Your task to perform on an android device: find snoozed emails in the gmail app Image 0: 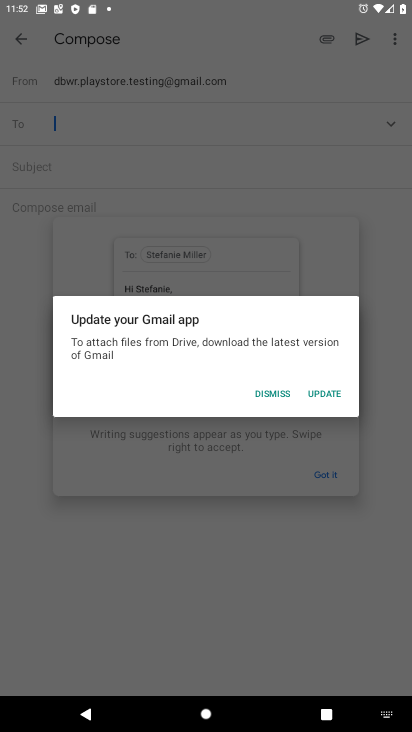
Step 0: press home button
Your task to perform on an android device: find snoozed emails in the gmail app Image 1: 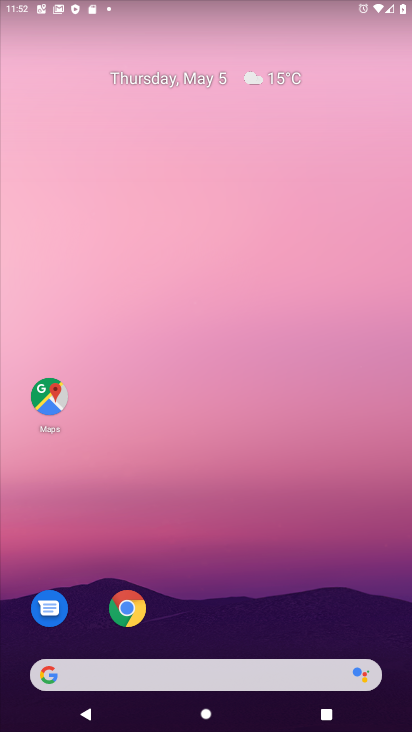
Step 1: drag from (251, 538) to (313, 164)
Your task to perform on an android device: find snoozed emails in the gmail app Image 2: 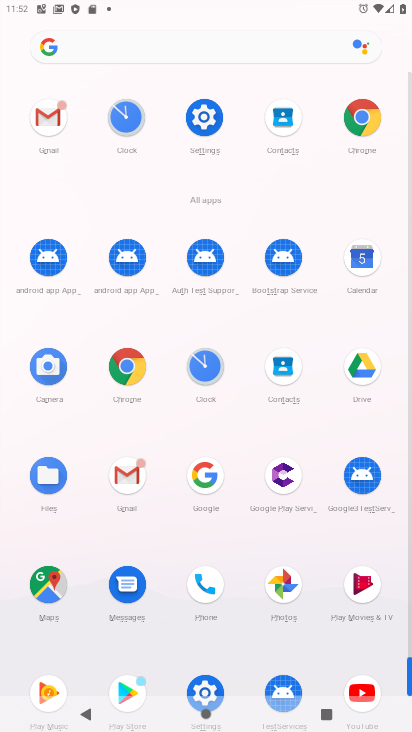
Step 2: click (131, 479)
Your task to perform on an android device: find snoozed emails in the gmail app Image 3: 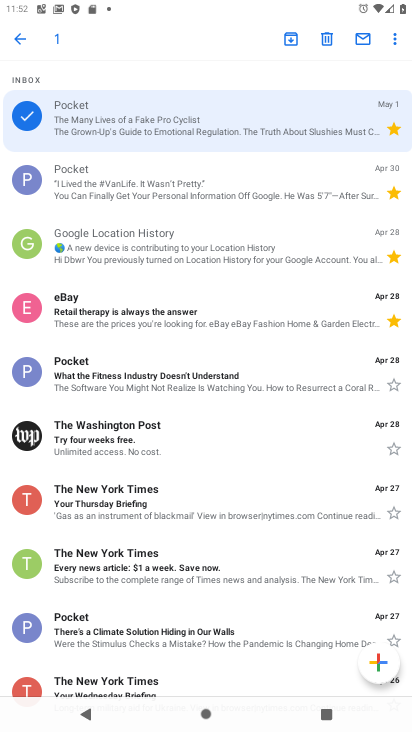
Step 3: press back button
Your task to perform on an android device: find snoozed emails in the gmail app Image 4: 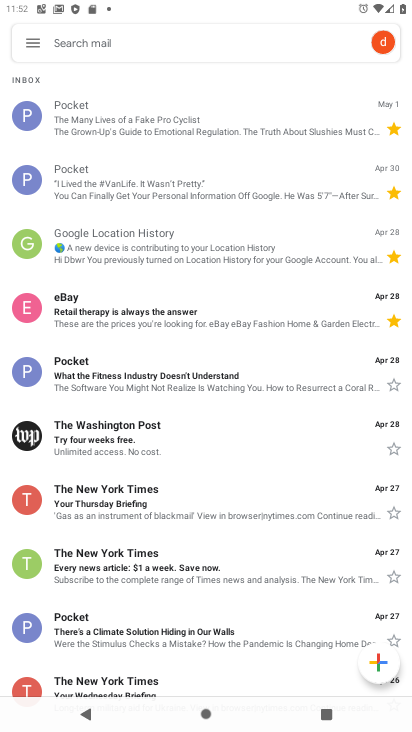
Step 4: click (30, 44)
Your task to perform on an android device: find snoozed emails in the gmail app Image 5: 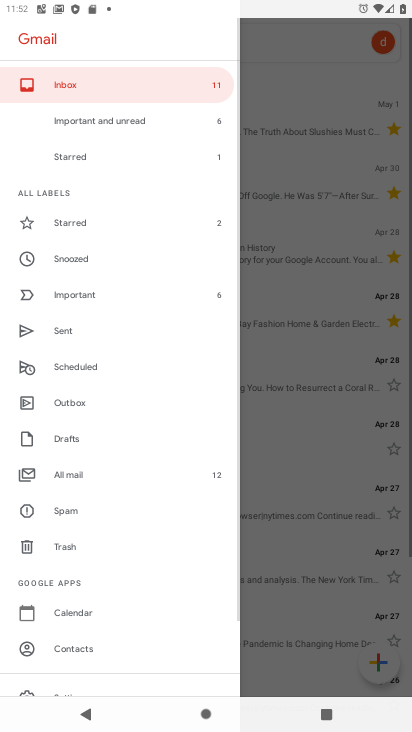
Step 5: click (66, 262)
Your task to perform on an android device: find snoozed emails in the gmail app Image 6: 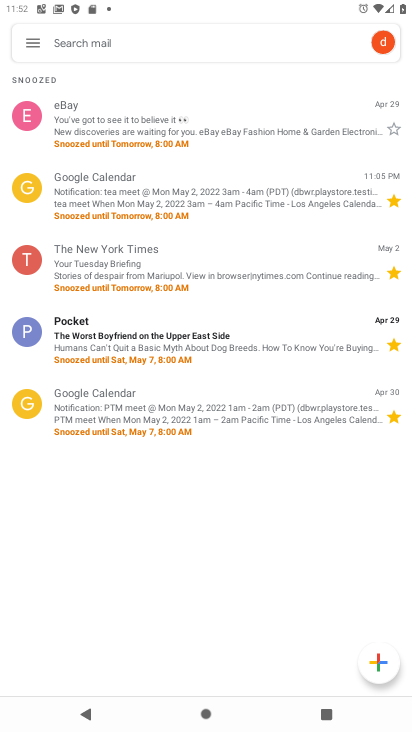
Step 6: task complete